Your task to perform on an android device: set an alarm Image 0: 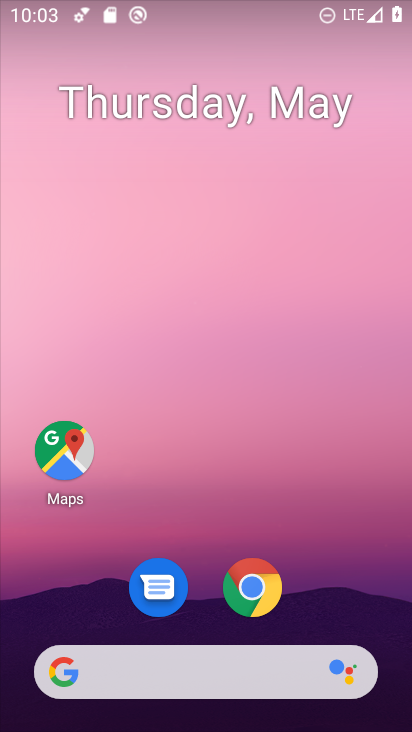
Step 0: drag from (367, 516) to (386, 13)
Your task to perform on an android device: set an alarm Image 1: 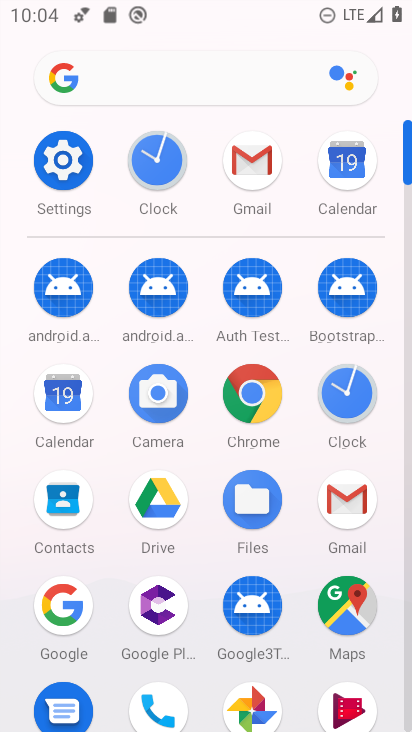
Step 1: click (154, 162)
Your task to perform on an android device: set an alarm Image 2: 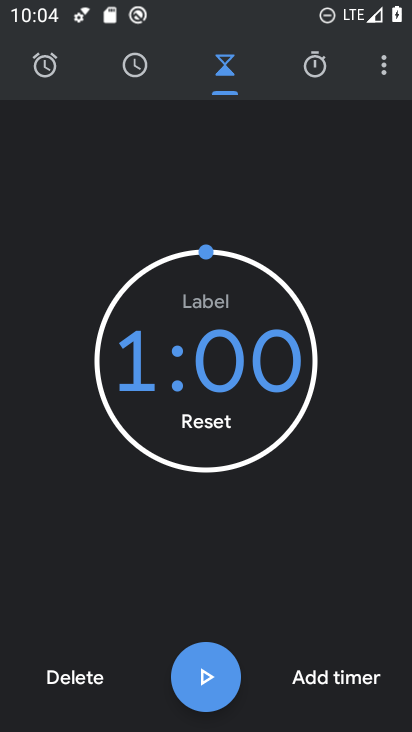
Step 2: click (48, 78)
Your task to perform on an android device: set an alarm Image 3: 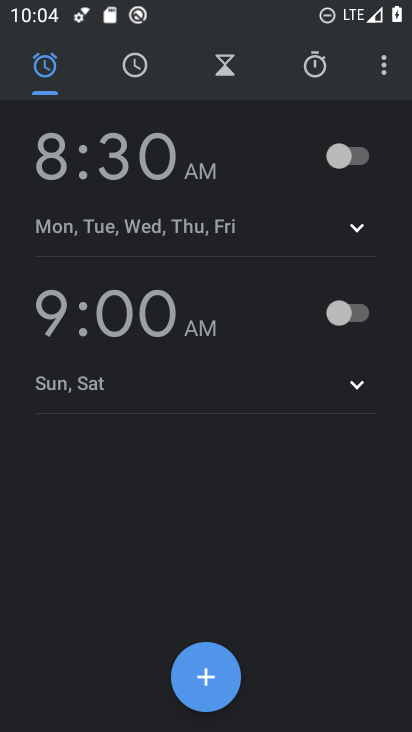
Step 3: click (202, 681)
Your task to perform on an android device: set an alarm Image 4: 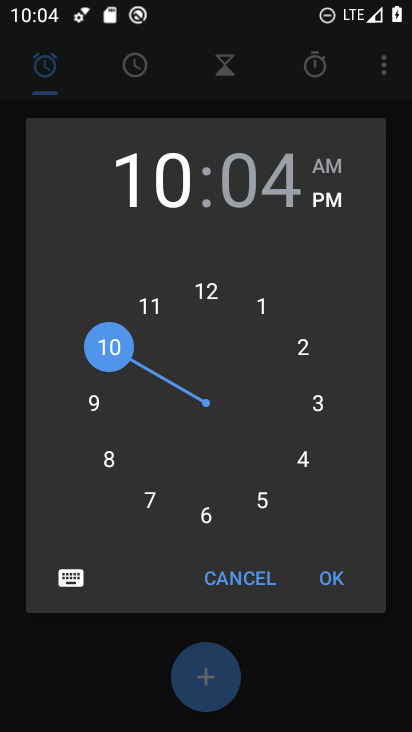
Step 4: click (263, 499)
Your task to perform on an android device: set an alarm Image 5: 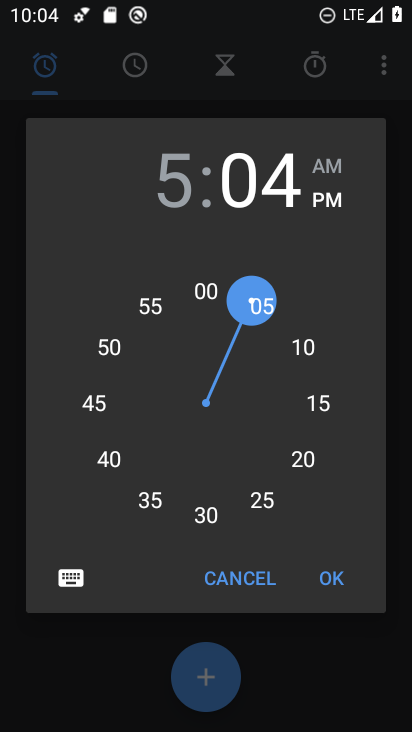
Step 5: click (212, 290)
Your task to perform on an android device: set an alarm Image 6: 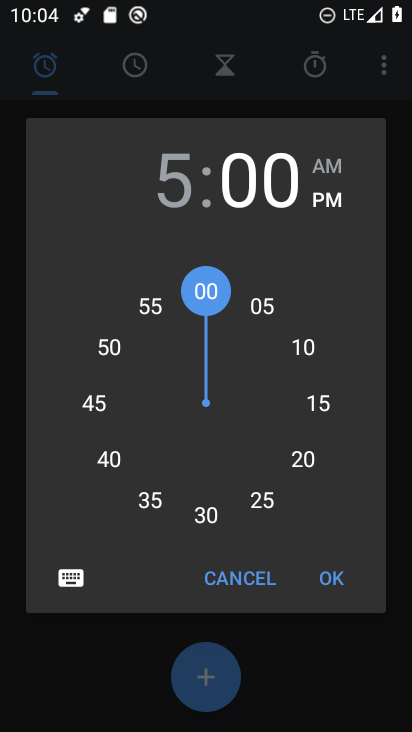
Step 6: click (317, 160)
Your task to perform on an android device: set an alarm Image 7: 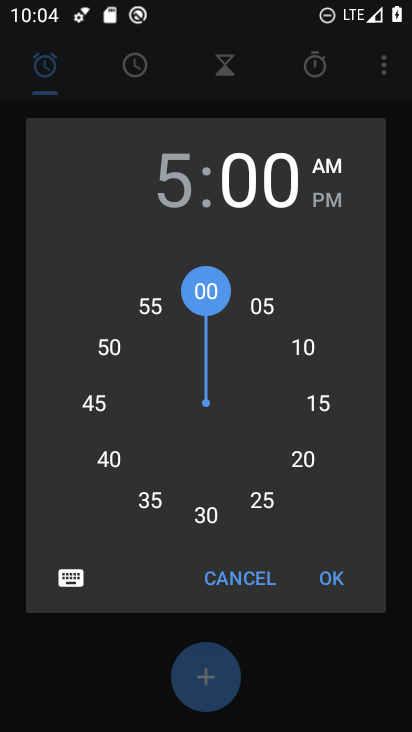
Step 7: click (342, 580)
Your task to perform on an android device: set an alarm Image 8: 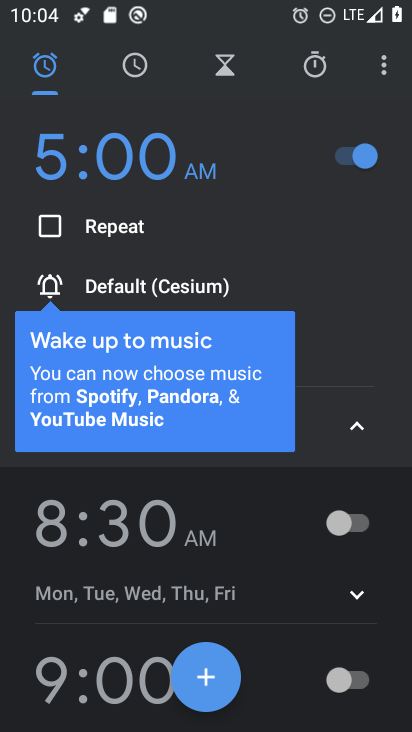
Step 8: task complete